Your task to perform on an android device: turn off airplane mode Image 0: 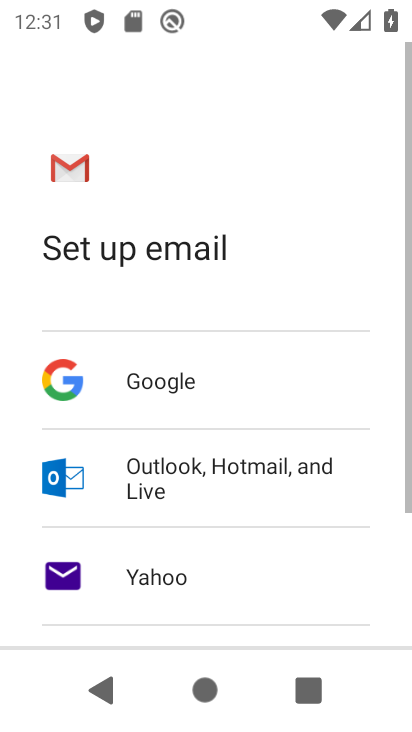
Step 0: press home button
Your task to perform on an android device: turn off airplane mode Image 1: 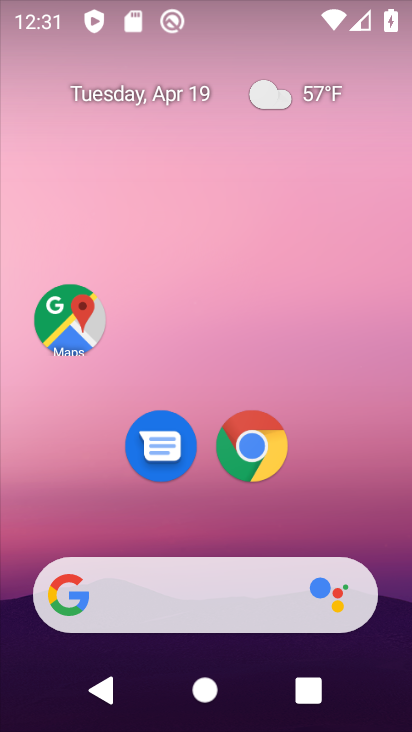
Step 1: drag from (346, 503) to (381, 53)
Your task to perform on an android device: turn off airplane mode Image 2: 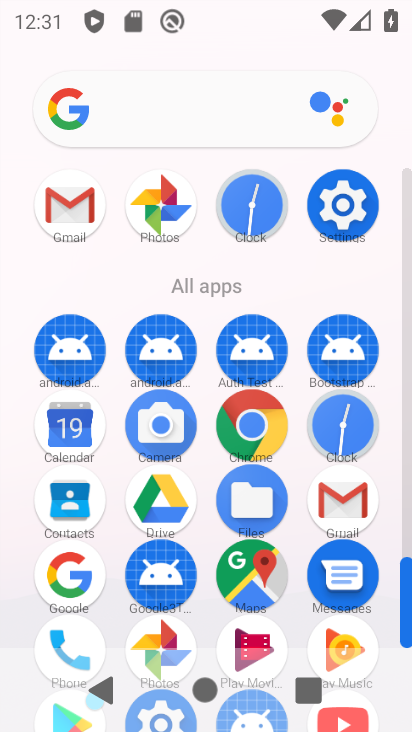
Step 2: click (341, 194)
Your task to perform on an android device: turn off airplane mode Image 3: 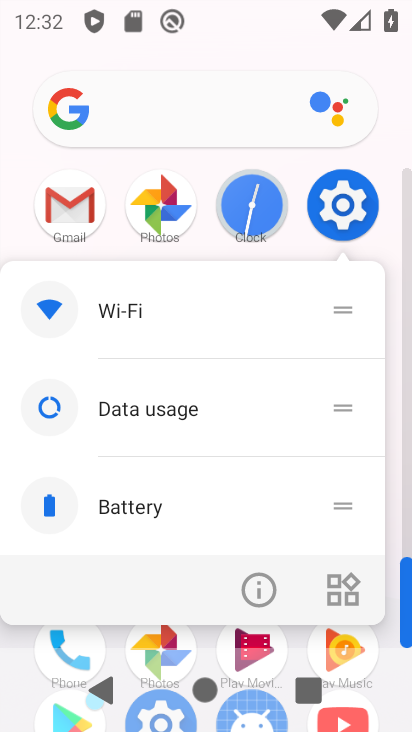
Step 3: click (341, 192)
Your task to perform on an android device: turn off airplane mode Image 4: 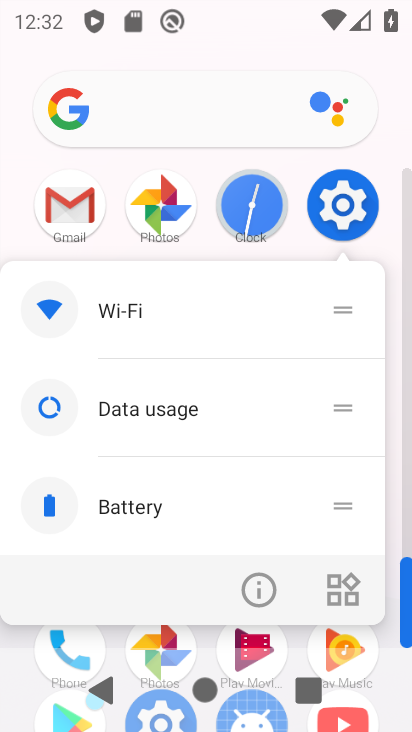
Step 4: click (341, 197)
Your task to perform on an android device: turn off airplane mode Image 5: 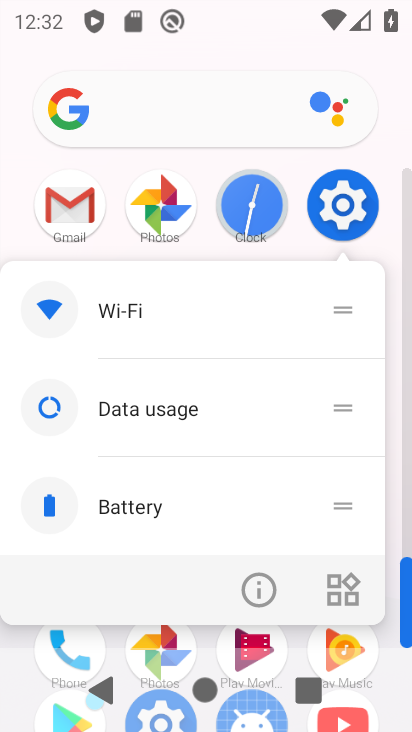
Step 5: click (341, 197)
Your task to perform on an android device: turn off airplane mode Image 6: 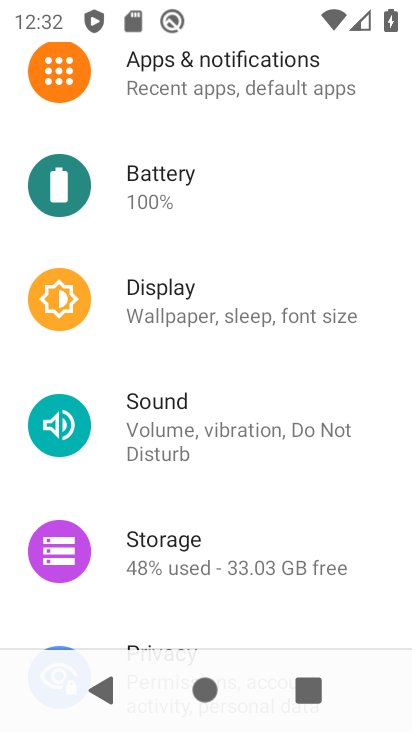
Step 6: drag from (336, 184) to (321, 452)
Your task to perform on an android device: turn off airplane mode Image 7: 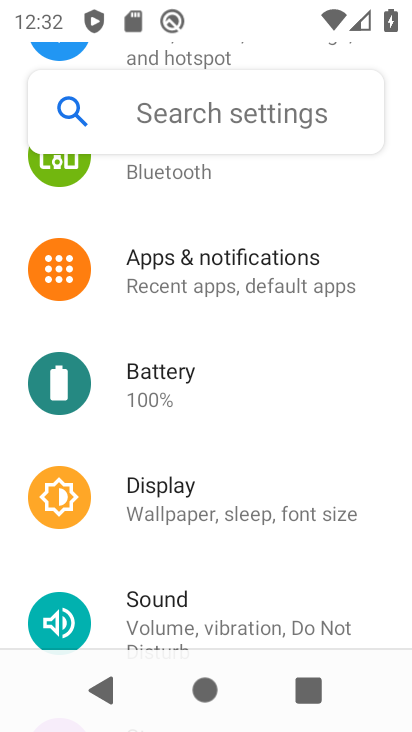
Step 7: drag from (251, 332) to (243, 586)
Your task to perform on an android device: turn off airplane mode Image 8: 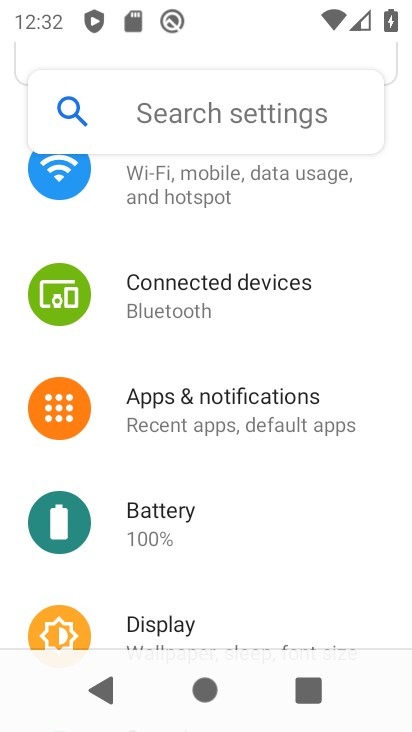
Step 8: drag from (266, 278) to (237, 594)
Your task to perform on an android device: turn off airplane mode Image 9: 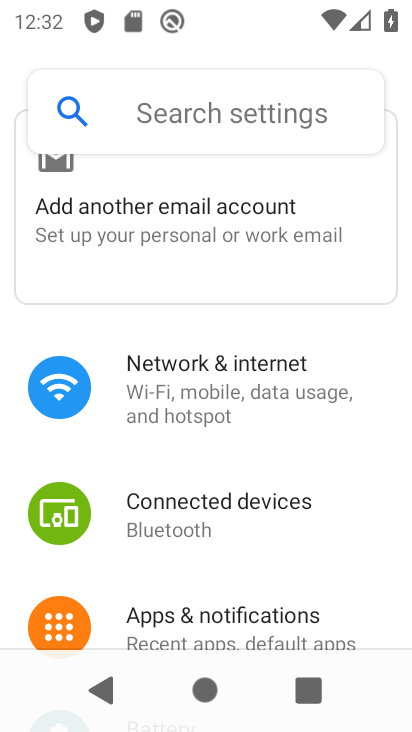
Step 9: click (273, 386)
Your task to perform on an android device: turn off airplane mode Image 10: 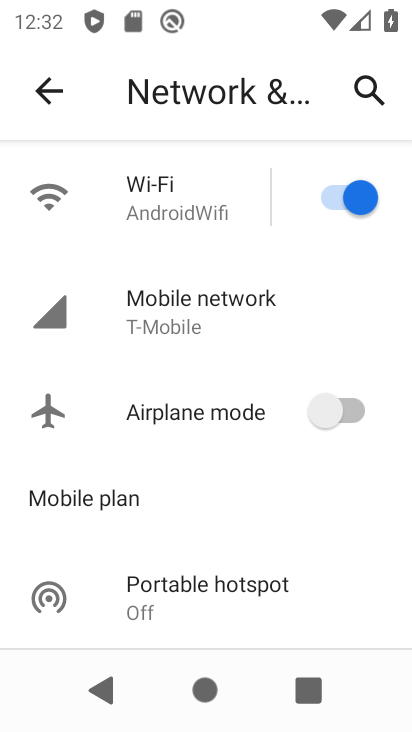
Step 10: task complete